Your task to perform on an android device: Open Chrome and go to the settings page Image 0: 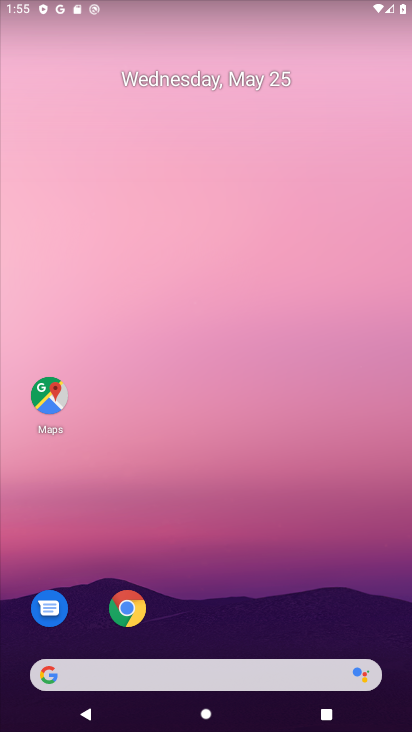
Step 0: click (124, 615)
Your task to perform on an android device: Open Chrome and go to the settings page Image 1: 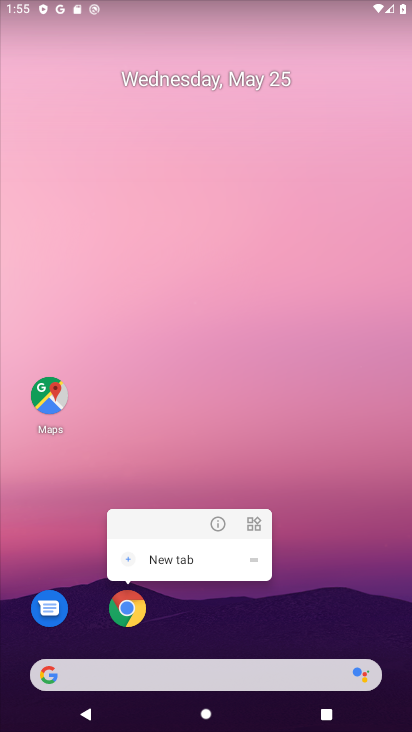
Step 1: drag from (319, 585) to (124, 609)
Your task to perform on an android device: Open Chrome and go to the settings page Image 2: 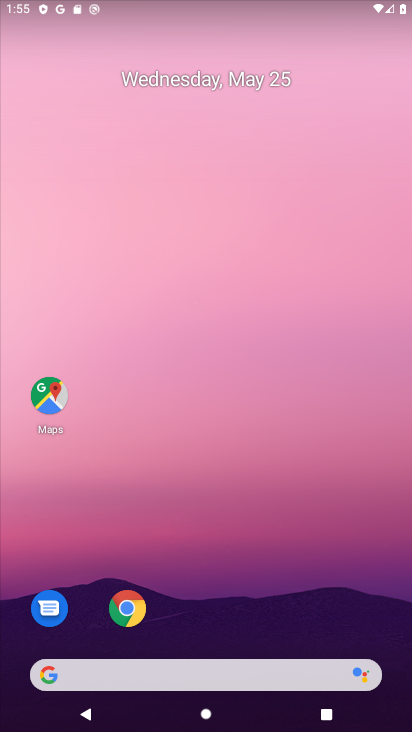
Step 2: drag from (319, 585) to (124, 609)
Your task to perform on an android device: Open Chrome and go to the settings page Image 3: 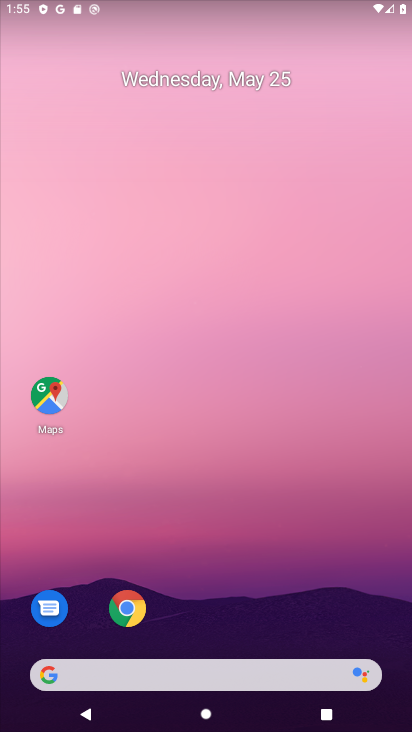
Step 3: drag from (319, 585) to (124, 609)
Your task to perform on an android device: Open Chrome and go to the settings page Image 4: 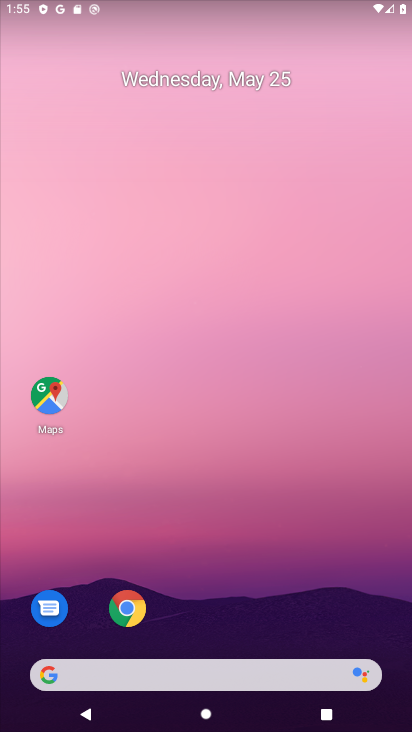
Step 4: drag from (319, 585) to (124, 609)
Your task to perform on an android device: Open Chrome and go to the settings page Image 5: 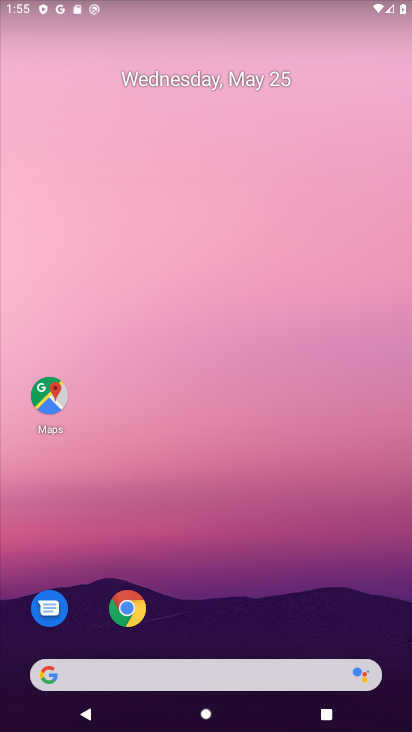
Step 5: click (124, 609)
Your task to perform on an android device: Open Chrome and go to the settings page Image 6: 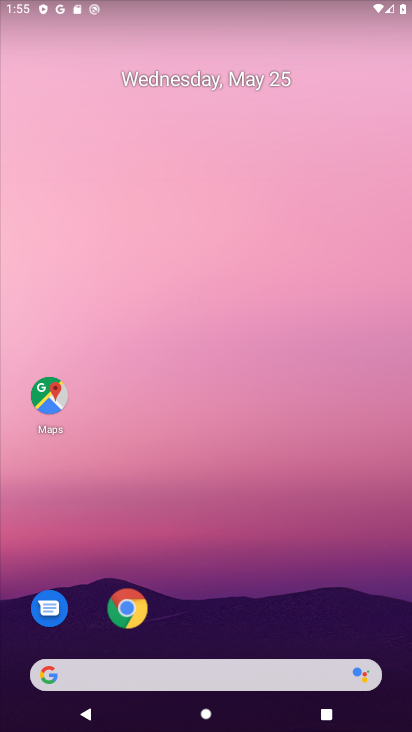
Step 6: click (124, 609)
Your task to perform on an android device: Open Chrome and go to the settings page Image 7: 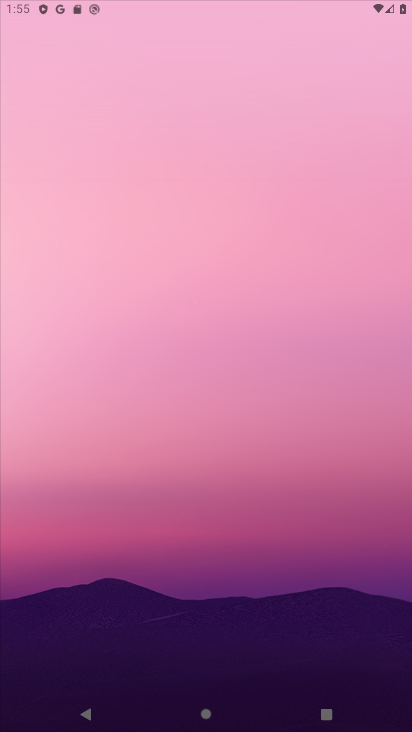
Step 7: click (124, 609)
Your task to perform on an android device: Open Chrome and go to the settings page Image 8: 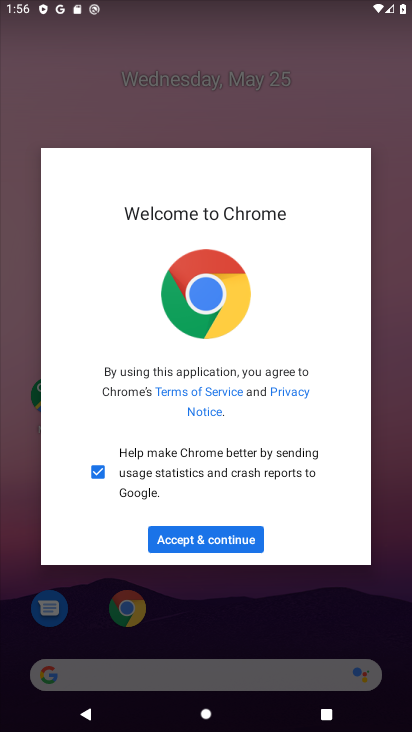
Step 8: click (201, 545)
Your task to perform on an android device: Open Chrome and go to the settings page Image 9: 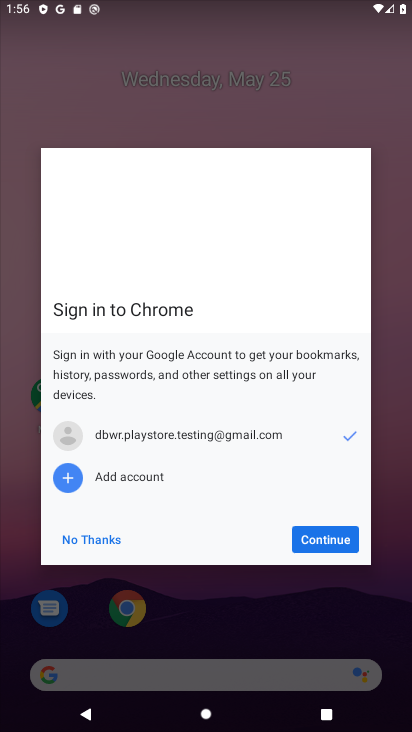
Step 9: click (86, 533)
Your task to perform on an android device: Open Chrome and go to the settings page Image 10: 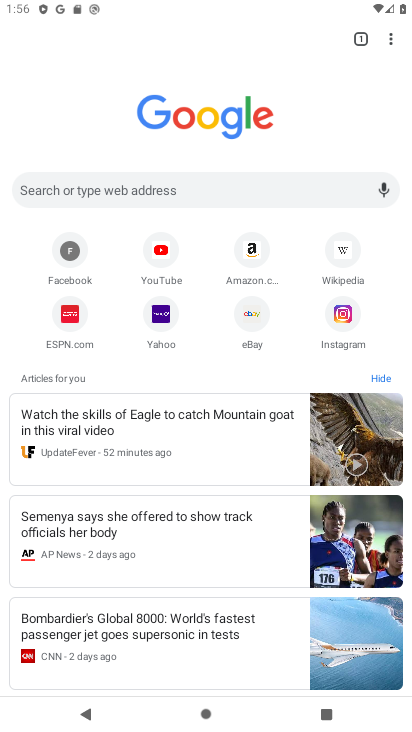
Step 10: click (394, 32)
Your task to perform on an android device: Open Chrome and go to the settings page Image 11: 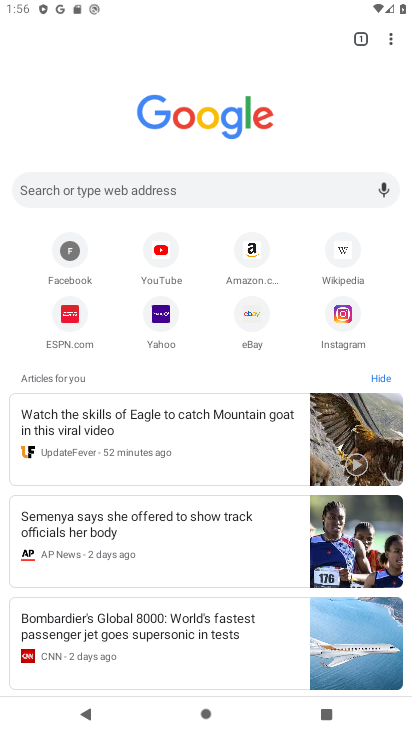
Step 11: click (390, 33)
Your task to perform on an android device: Open Chrome and go to the settings page Image 12: 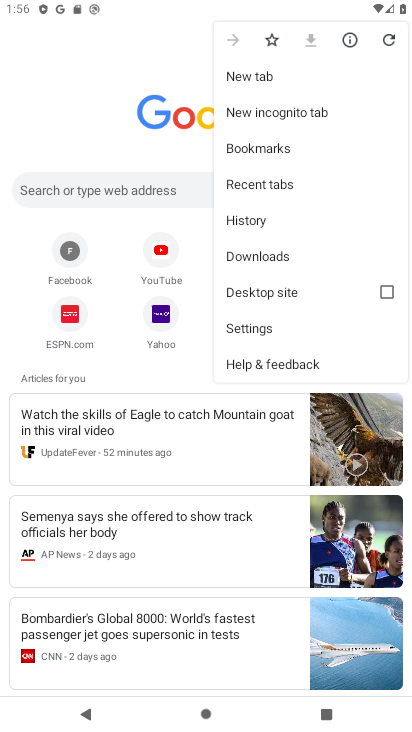
Step 12: click (265, 328)
Your task to perform on an android device: Open Chrome and go to the settings page Image 13: 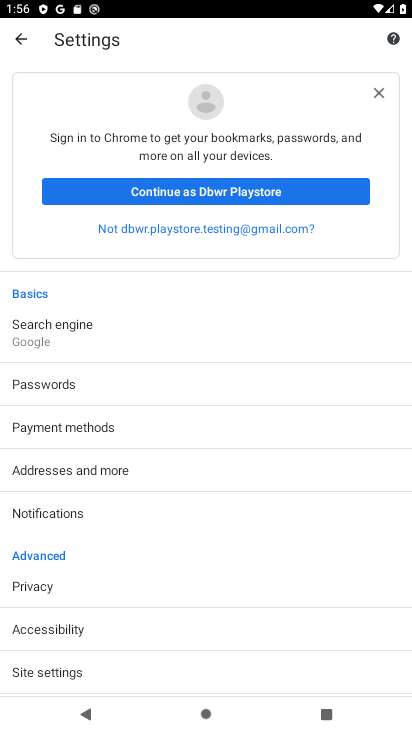
Step 13: task complete